Your task to perform on an android device: Open Google Chrome and click the shortcut for Amazon.com Image 0: 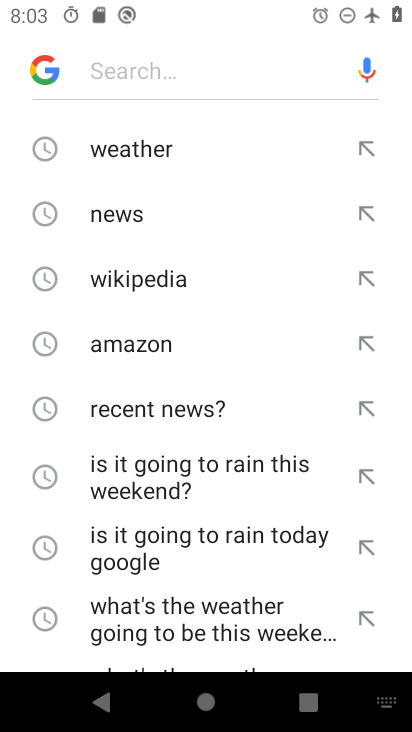
Step 0: press home button
Your task to perform on an android device: Open Google Chrome and click the shortcut for Amazon.com Image 1: 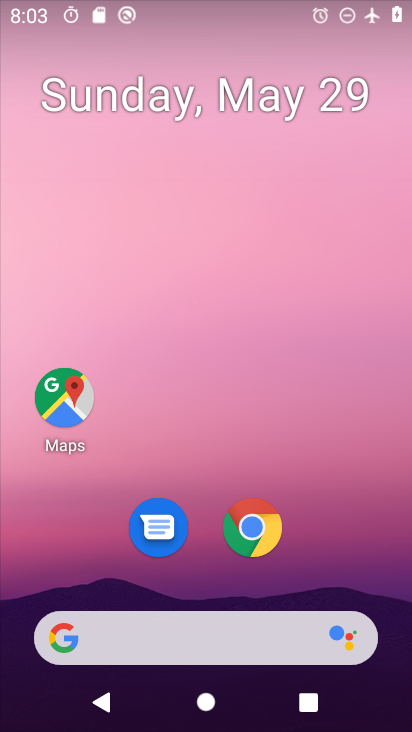
Step 1: drag from (405, 653) to (233, 0)
Your task to perform on an android device: Open Google Chrome and click the shortcut for Amazon.com Image 2: 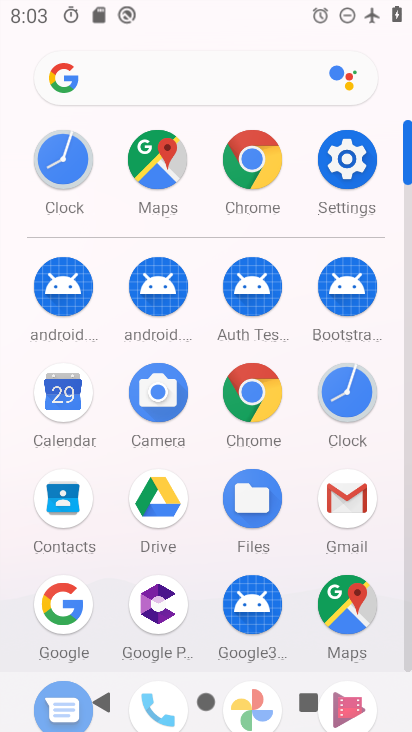
Step 2: click (249, 405)
Your task to perform on an android device: Open Google Chrome and click the shortcut for Amazon.com Image 3: 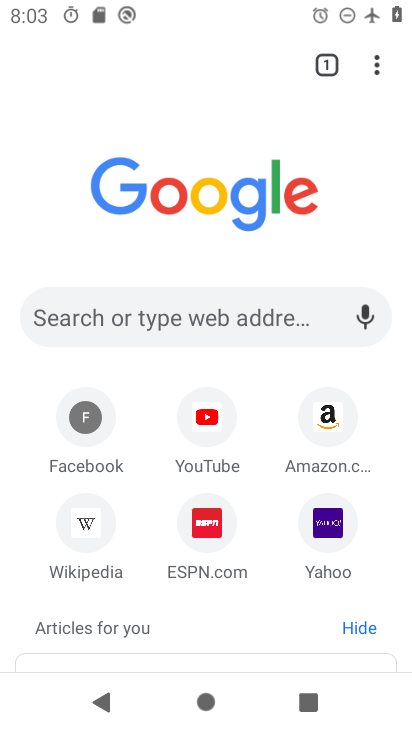
Step 3: click (345, 422)
Your task to perform on an android device: Open Google Chrome and click the shortcut for Amazon.com Image 4: 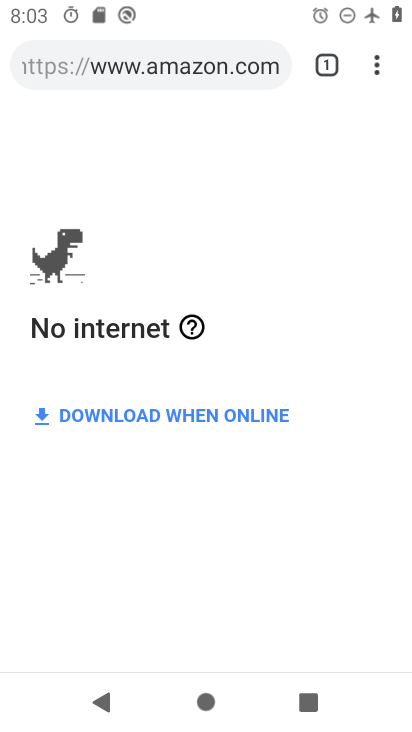
Step 4: task complete